Your task to perform on an android device: Open Google Chrome Image 0: 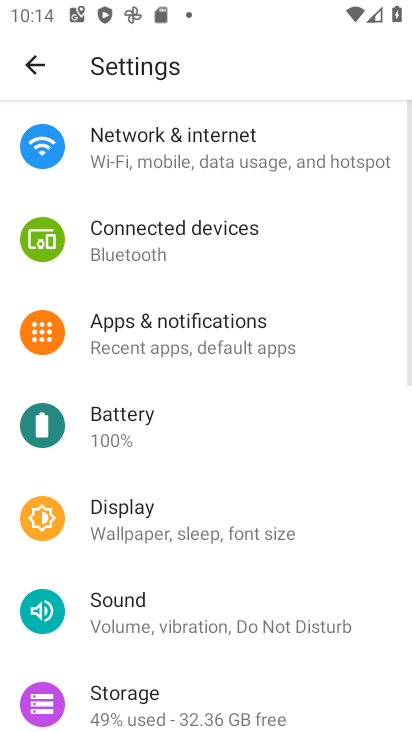
Step 0: press home button
Your task to perform on an android device: Open Google Chrome Image 1: 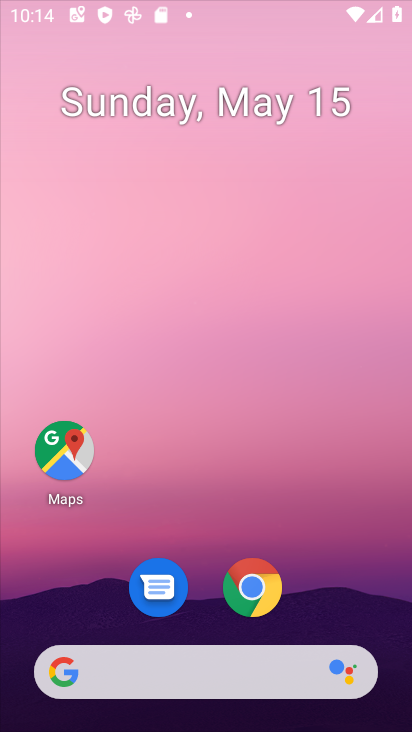
Step 1: drag from (375, 664) to (310, 125)
Your task to perform on an android device: Open Google Chrome Image 2: 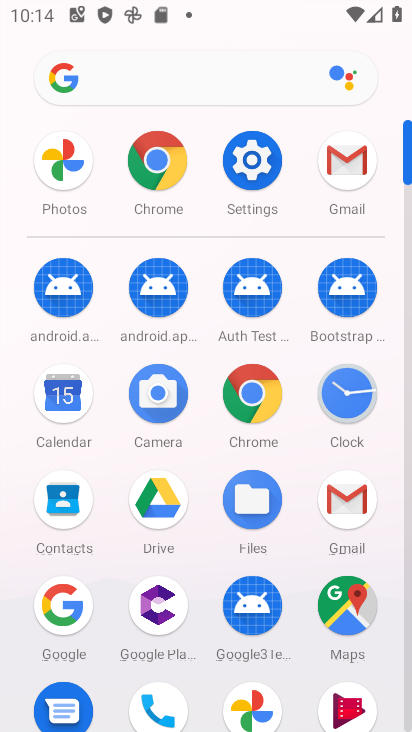
Step 2: click (260, 391)
Your task to perform on an android device: Open Google Chrome Image 3: 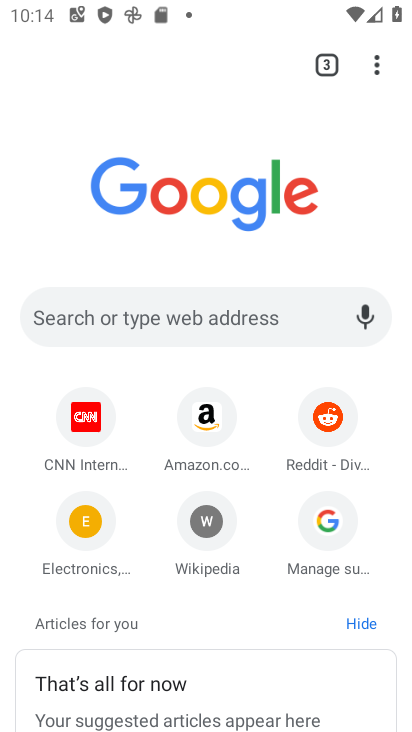
Step 3: task complete